Your task to perform on an android device: Open CNN.com Image 0: 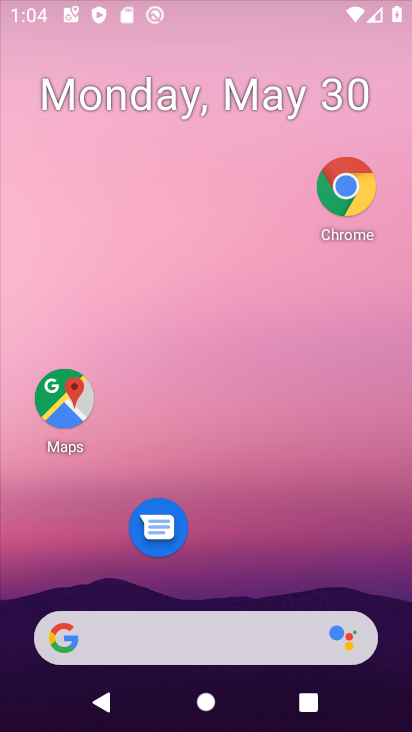
Step 0: drag from (197, 579) to (238, 145)
Your task to perform on an android device: Open CNN.com Image 1: 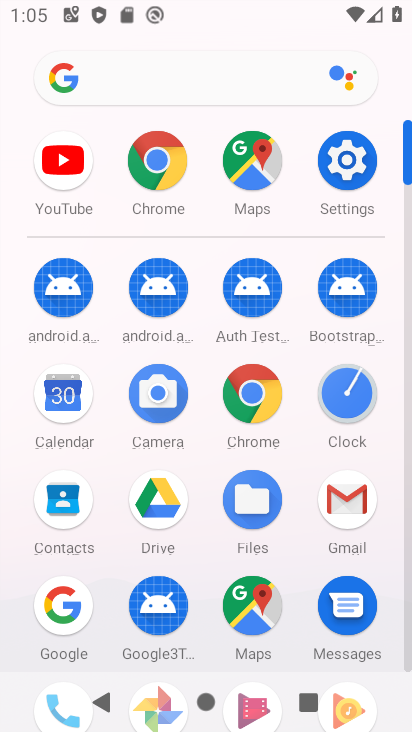
Step 1: click (146, 68)
Your task to perform on an android device: Open CNN.com Image 2: 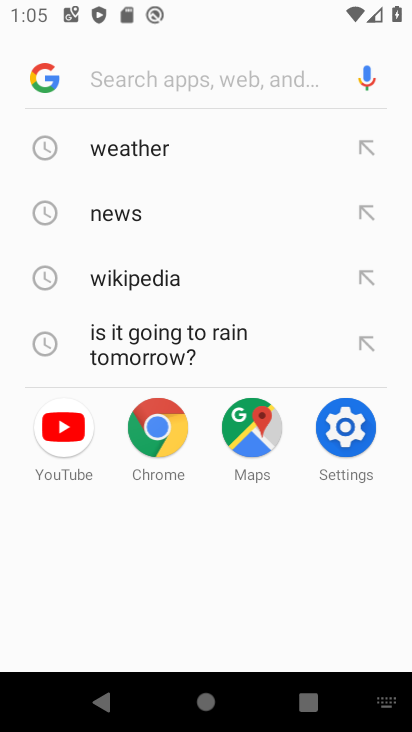
Step 2: type "CNN.com"
Your task to perform on an android device: Open CNN.com Image 3: 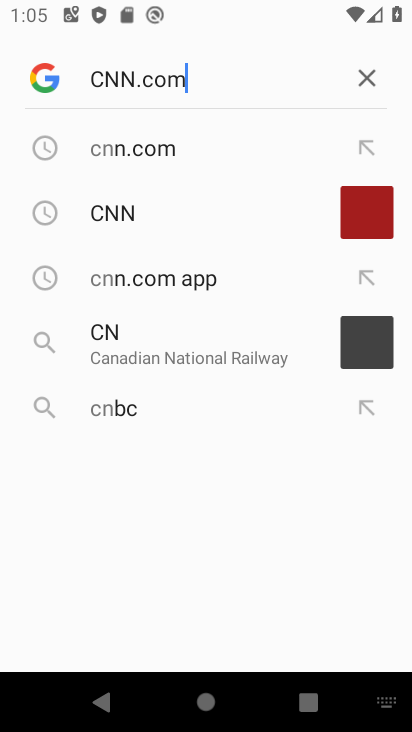
Step 3: type ""
Your task to perform on an android device: Open CNN.com Image 4: 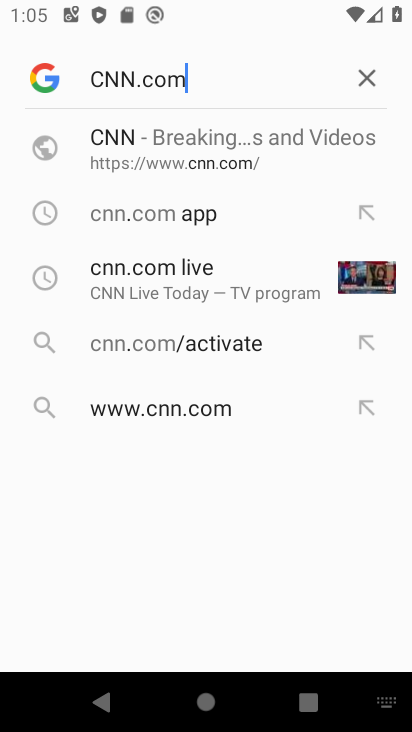
Step 4: click (130, 139)
Your task to perform on an android device: Open CNN.com Image 5: 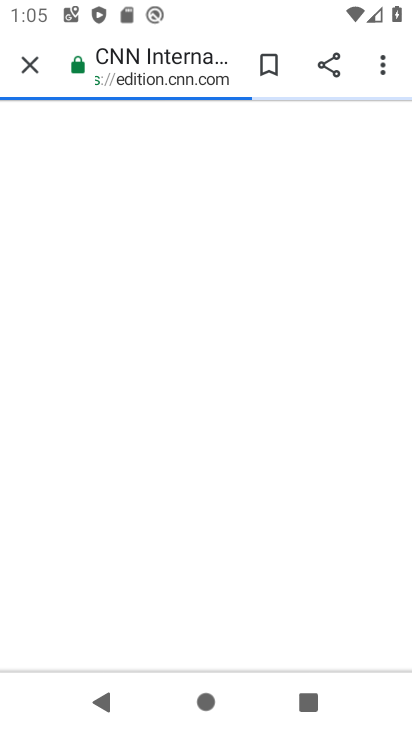
Step 5: task complete